Your task to perform on an android device: find snoozed emails in the gmail app Image 0: 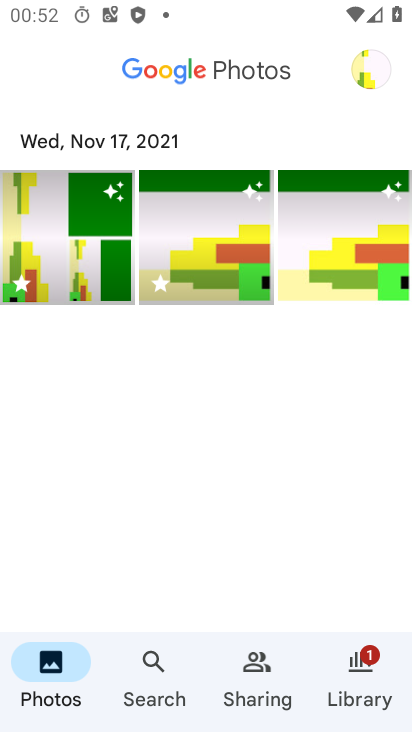
Step 0: press home button
Your task to perform on an android device: find snoozed emails in the gmail app Image 1: 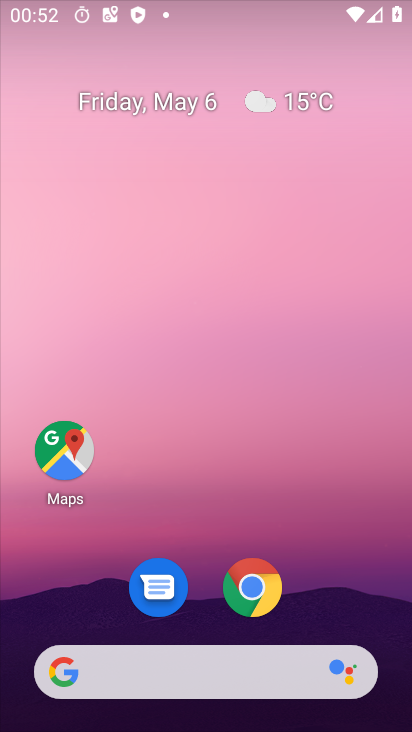
Step 1: drag from (376, 582) to (333, 166)
Your task to perform on an android device: find snoozed emails in the gmail app Image 2: 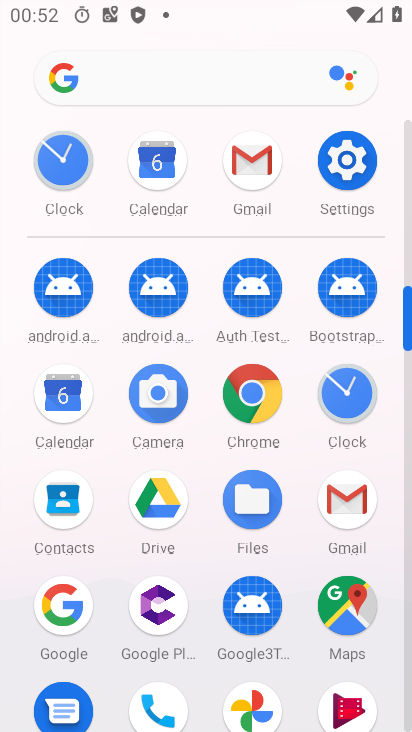
Step 2: click (362, 484)
Your task to perform on an android device: find snoozed emails in the gmail app Image 3: 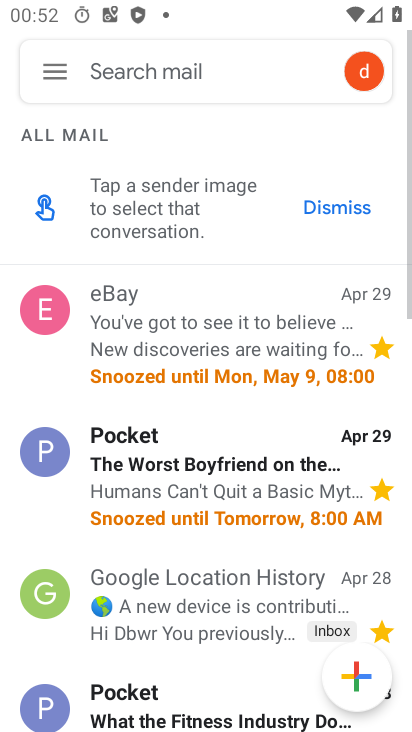
Step 3: click (49, 74)
Your task to perform on an android device: find snoozed emails in the gmail app Image 4: 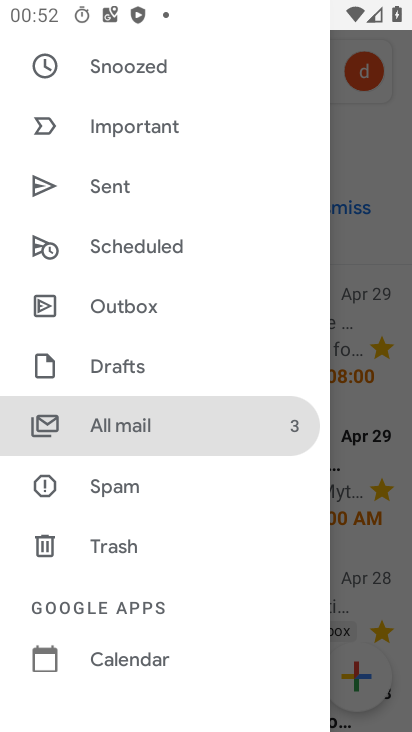
Step 4: click (136, 66)
Your task to perform on an android device: find snoozed emails in the gmail app Image 5: 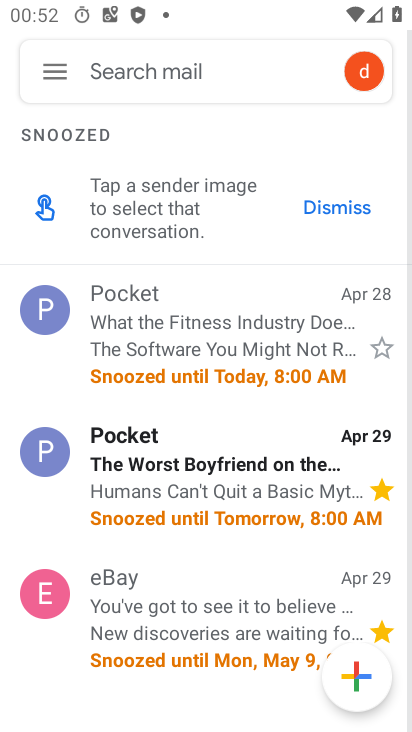
Step 5: task complete